Your task to perform on an android device: Open Chrome and go to settings Image 0: 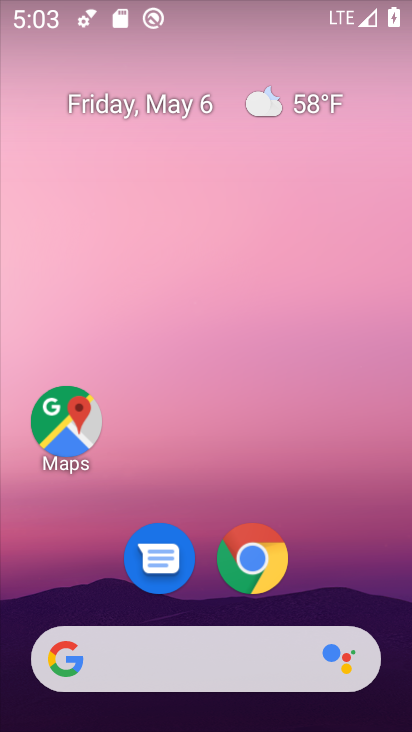
Step 0: drag from (331, 624) to (348, 0)
Your task to perform on an android device: Open Chrome and go to settings Image 1: 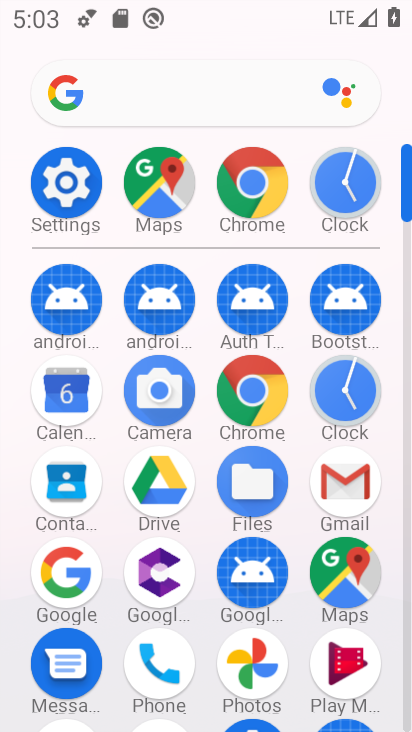
Step 1: click (251, 400)
Your task to perform on an android device: Open Chrome and go to settings Image 2: 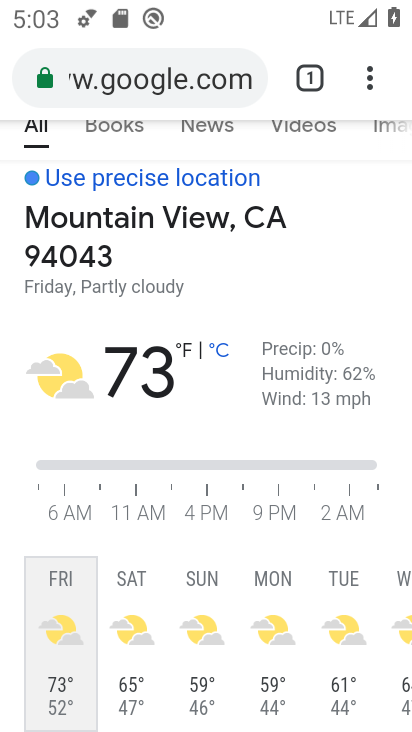
Step 2: task complete